Your task to perform on an android device: Search for Mexican restaurants on Maps Image 0: 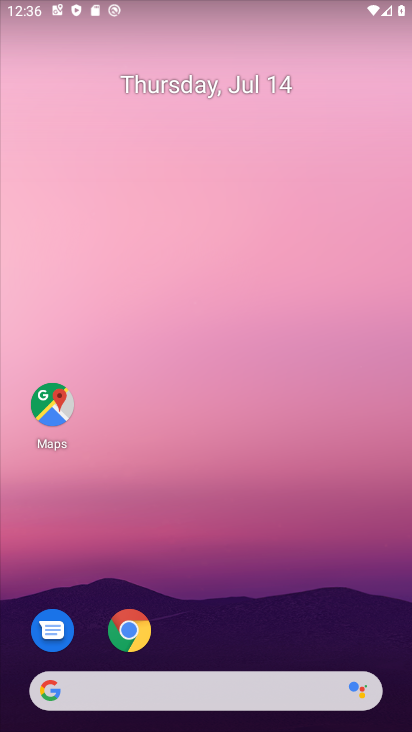
Step 0: click (61, 404)
Your task to perform on an android device: Search for Mexican restaurants on Maps Image 1: 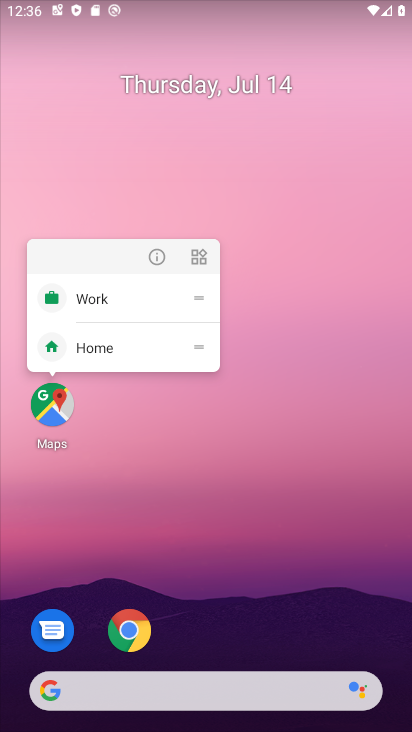
Step 1: click (61, 404)
Your task to perform on an android device: Search for Mexican restaurants on Maps Image 2: 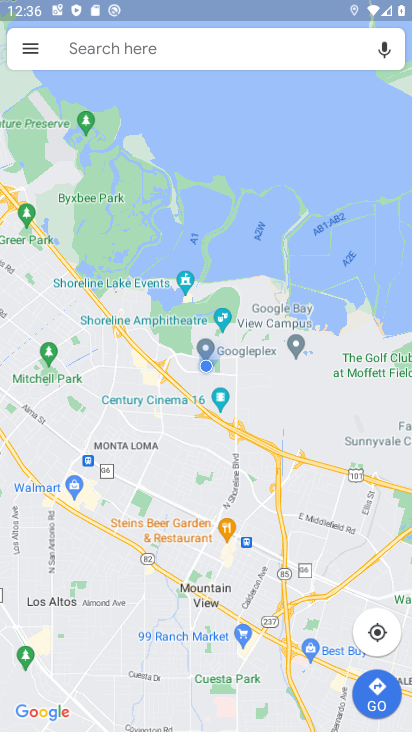
Step 2: click (97, 50)
Your task to perform on an android device: Search for Mexican restaurants on Maps Image 3: 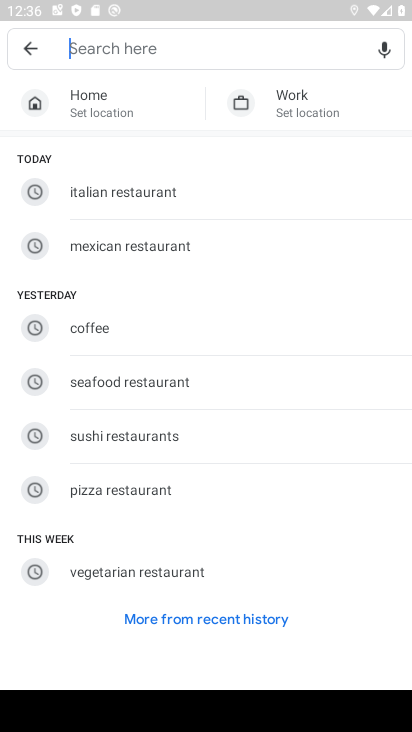
Step 3: click (124, 246)
Your task to perform on an android device: Search for Mexican restaurants on Maps Image 4: 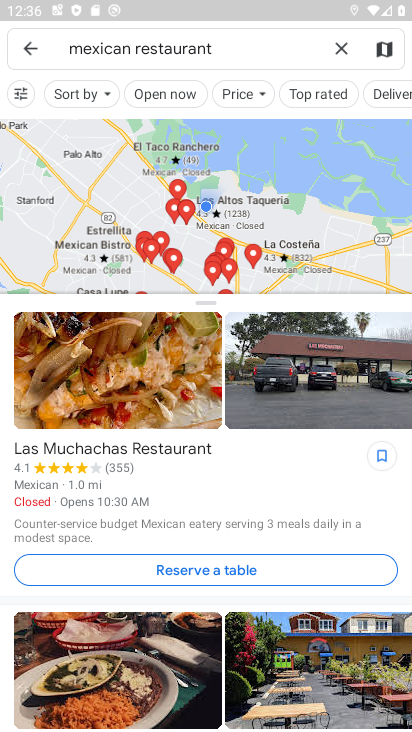
Step 4: task complete